Your task to perform on an android device: show emergency info Image 0: 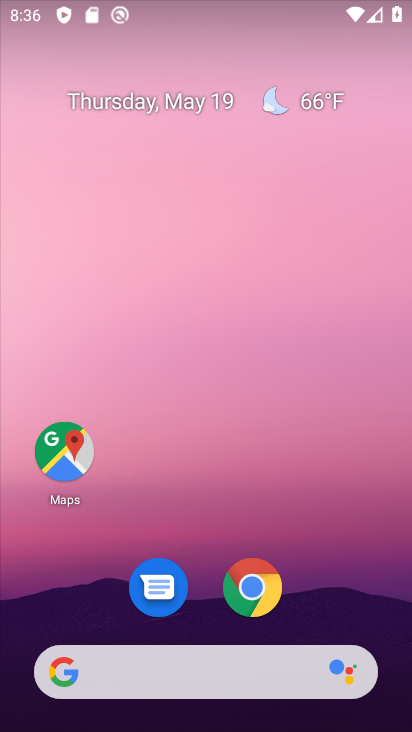
Step 0: drag from (274, 687) to (237, 179)
Your task to perform on an android device: show emergency info Image 1: 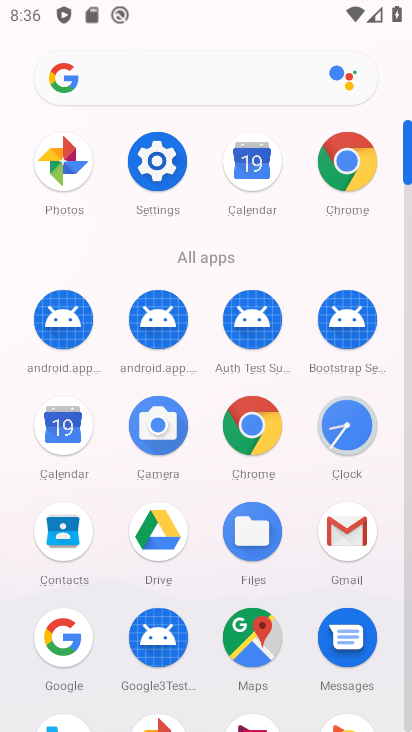
Step 1: click (175, 144)
Your task to perform on an android device: show emergency info Image 2: 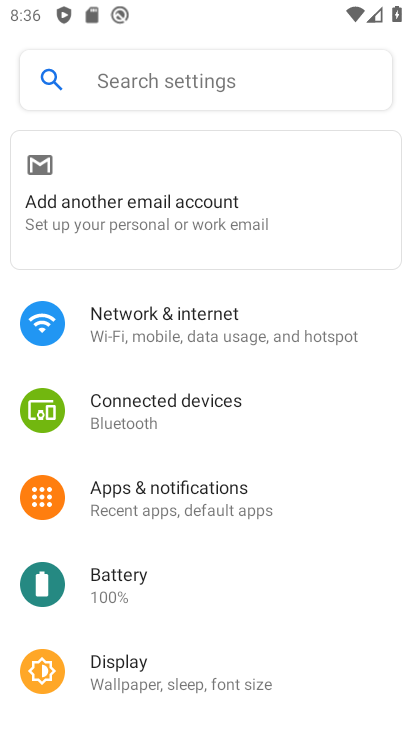
Step 2: click (150, 79)
Your task to perform on an android device: show emergency info Image 3: 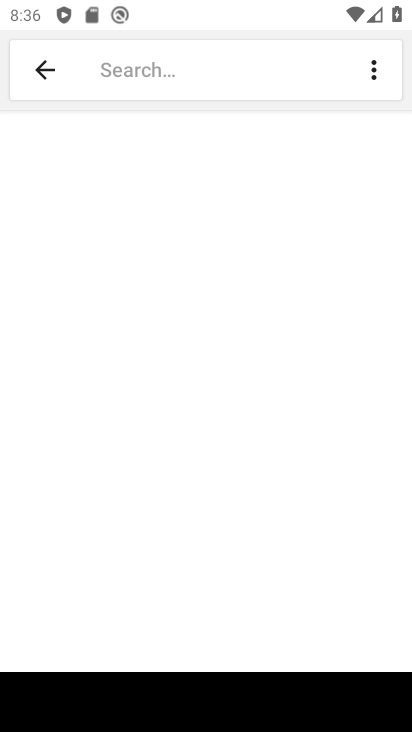
Step 3: drag from (406, 704) to (356, 565)
Your task to perform on an android device: show emergency info Image 4: 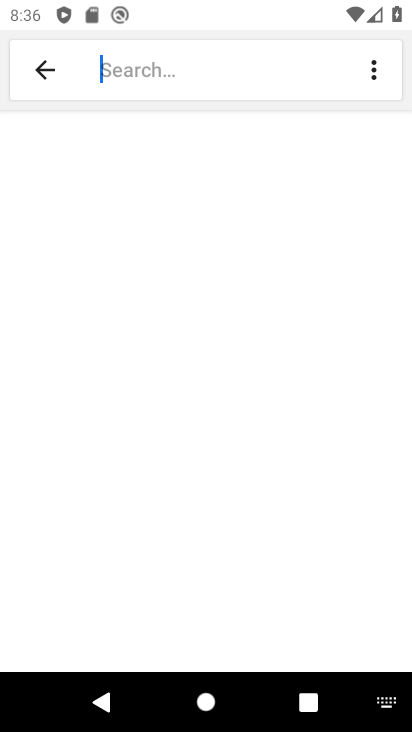
Step 4: click (395, 730)
Your task to perform on an android device: show emergency info Image 5: 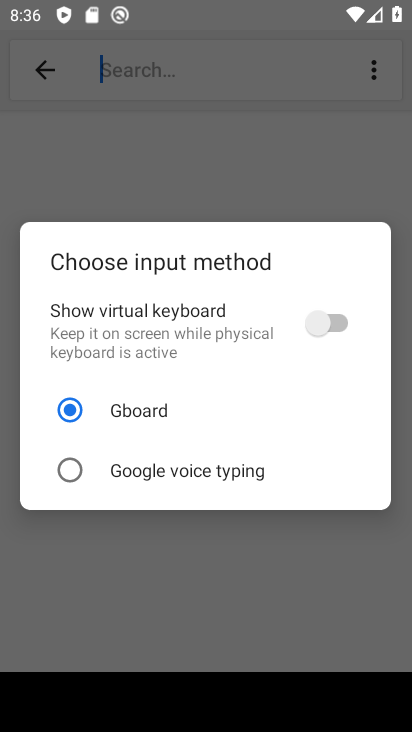
Step 5: click (322, 330)
Your task to perform on an android device: show emergency info Image 6: 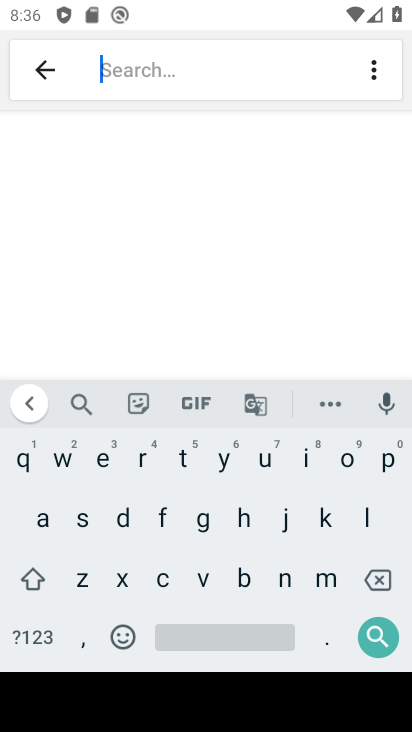
Step 6: click (103, 465)
Your task to perform on an android device: show emergency info Image 7: 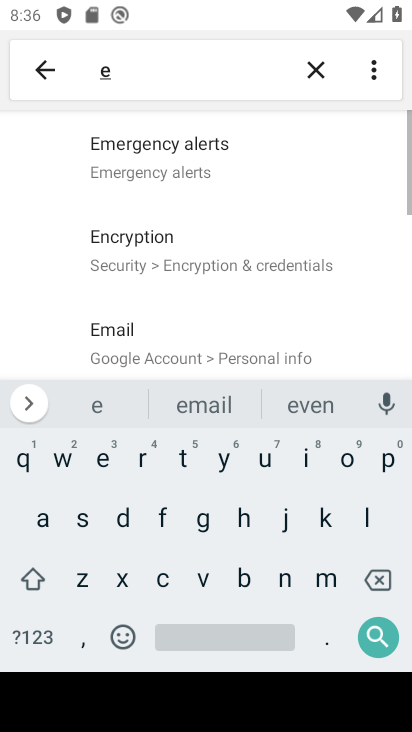
Step 7: click (318, 582)
Your task to perform on an android device: show emergency info Image 8: 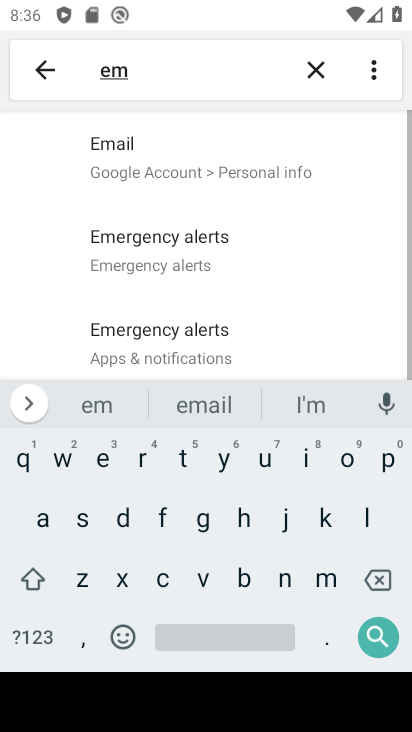
Step 8: click (102, 464)
Your task to perform on an android device: show emergency info Image 9: 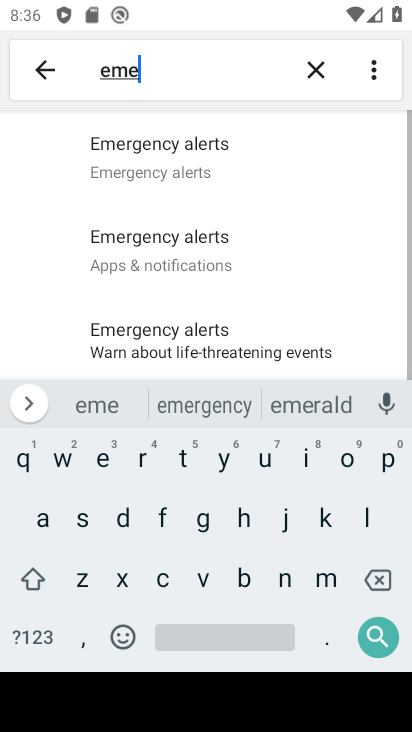
Step 9: click (188, 409)
Your task to perform on an android device: show emergency info Image 10: 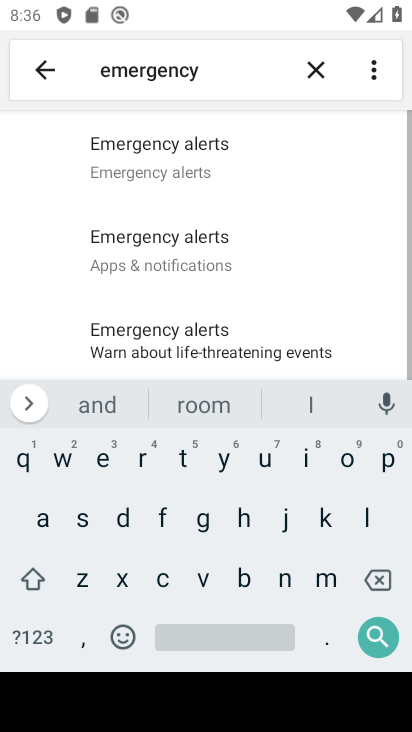
Step 10: click (304, 462)
Your task to perform on an android device: show emergency info Image 11: 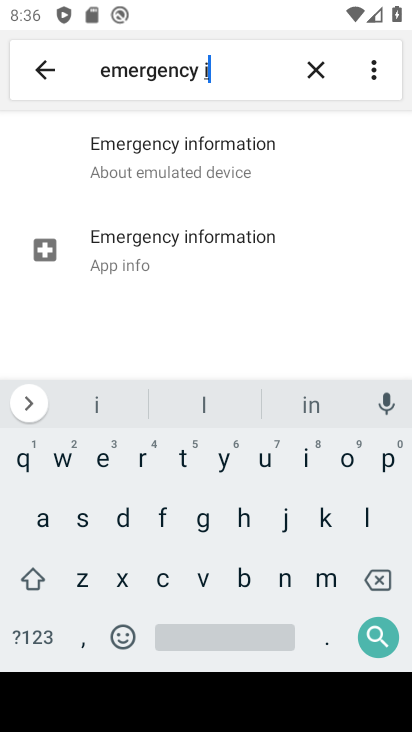
Step 11: click (195, 161)
Your task to perform on an android device: show emergency info Image 12: 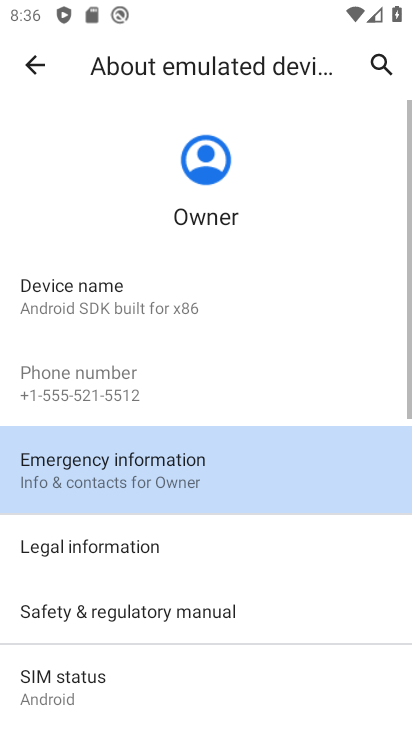
Step 12: click (131, 467)
Your task to perform on an android device: show emergency info Image 13: 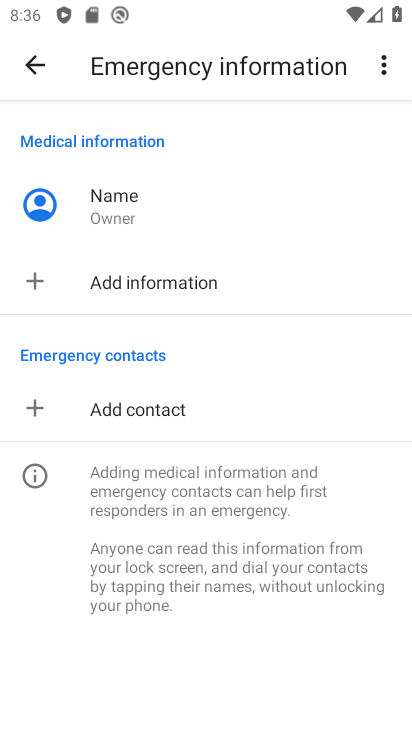
Step 13: task complete